Your task to perform on an android device: Open Chrome and go to settings Image 0: 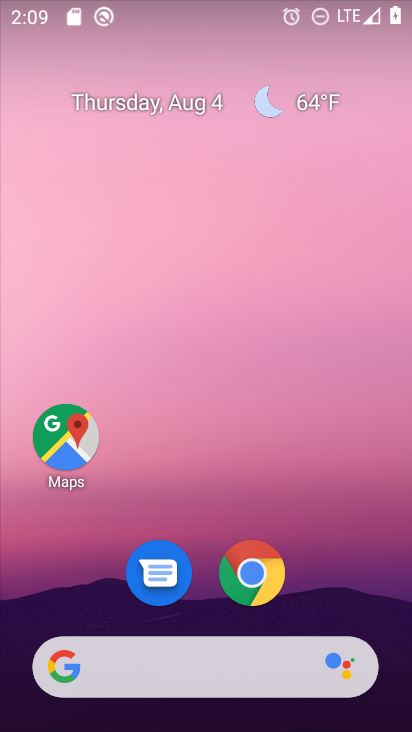
Step 0: drag from (323, 564) to (301, 167)
Your task to perform on an android device: Open Chrome and go to settings Image 1: 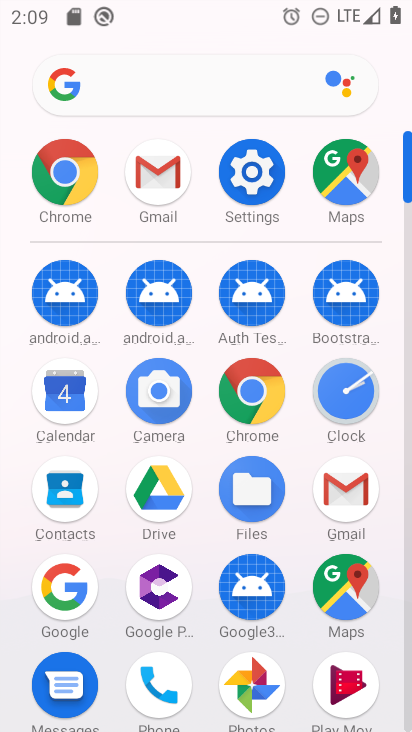
Step 1: click (258, 388)
Your task to perform on an android device: Open Chrome and go to settings Image 2: 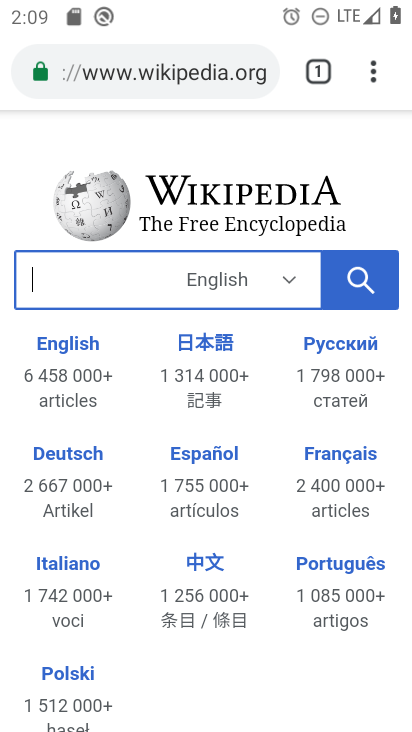
Step 2: click (380, 68)
Your task to perform on an android device: Open Chrome and go to settings Image 3: 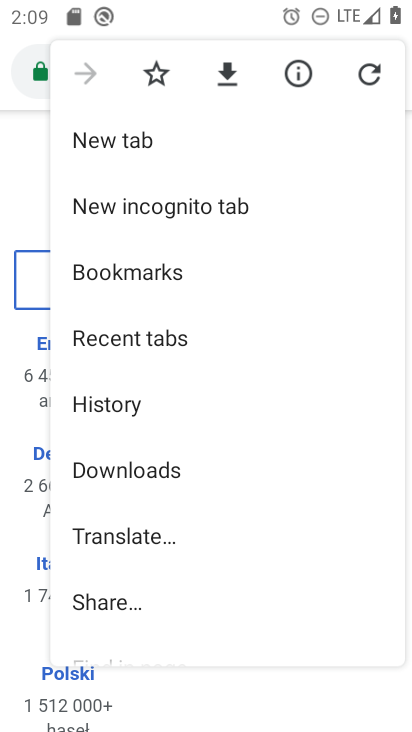
Step 3: drag from (135, 547) to (182, 207)
Your task to perform on an android device: Open Chrome and go to settings Image 4: 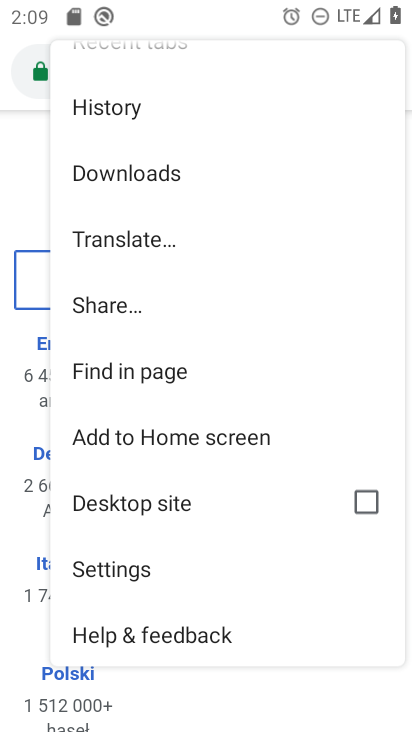
Step 4: click (123, 576)
Your task to perform on an android device: Open Chrome and go to settings Image 5: 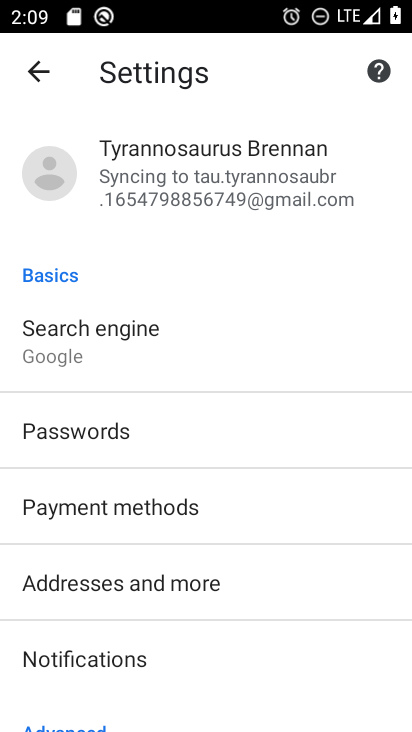
Step 5: task complete